Your task to perform on an android device: turn on location history Image 0: 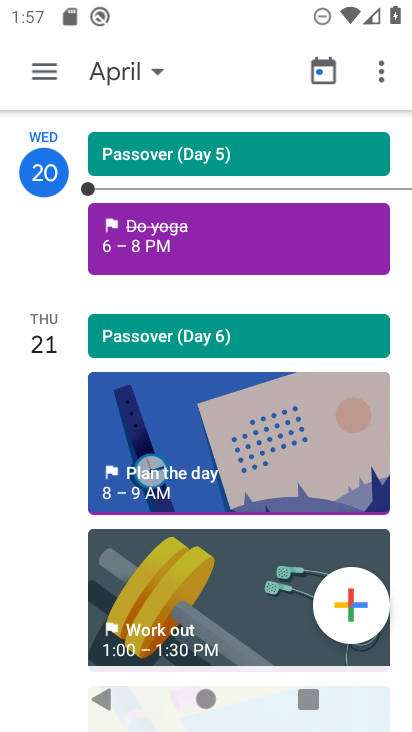
Step 0: press home button
Your task to perform on an android device: turn on location history Image 1: 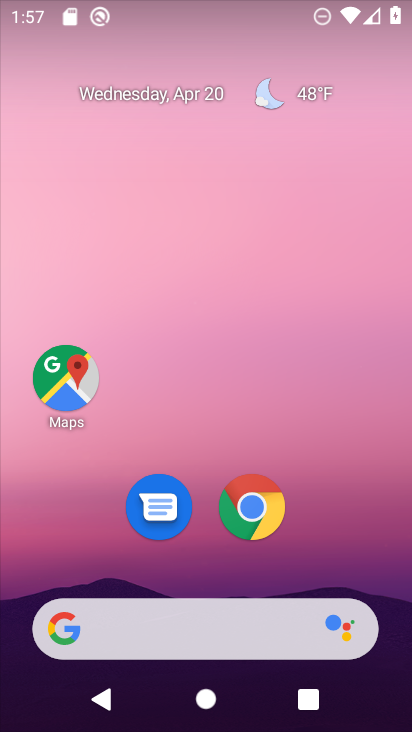
Step 1: drag from (212, 726) to (211, 69)
Your task to perform on an android device: turn on location history Image 2: 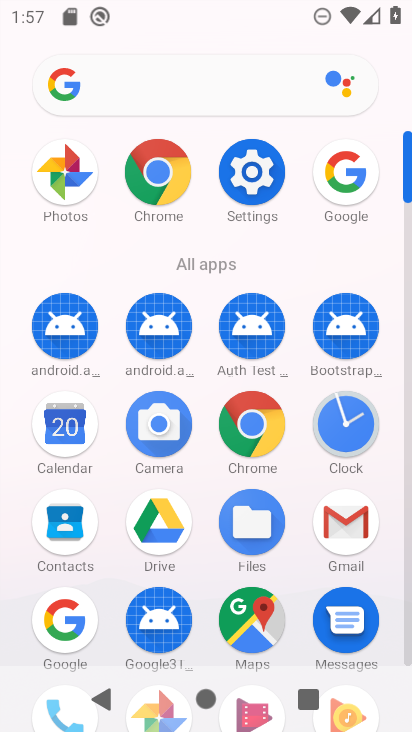
Step 2: click (249, 172)
Your task to perform on an android device: turn on location history Image 3: 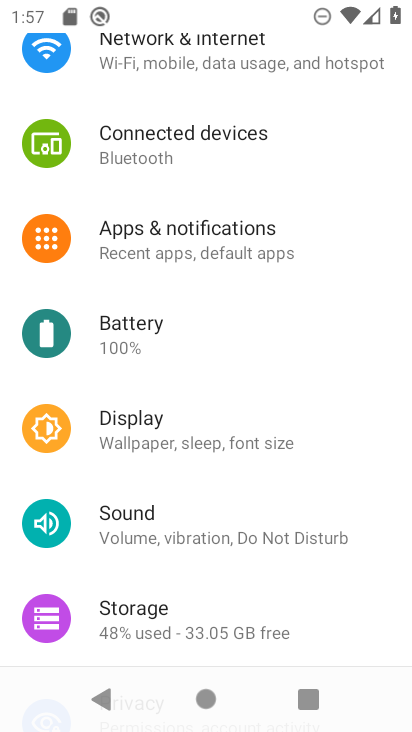
Step 3: drag from (180, 590) to (167, 252)
Your task to perform on an android device: turn on location history Image 4: 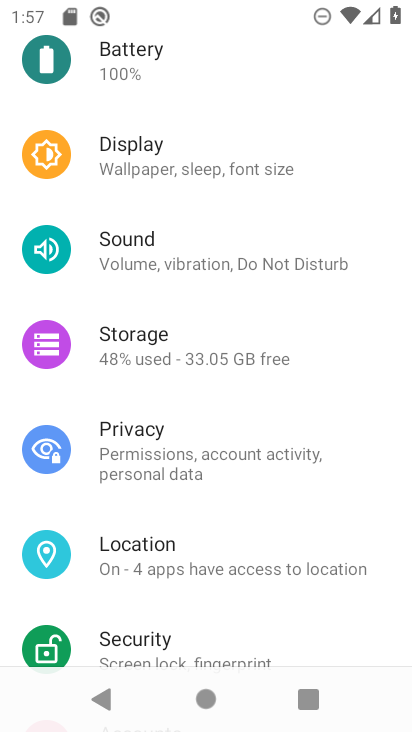
Step 4: click (154, 548)
Your task to perform on an android device: turn on location history Image 5: 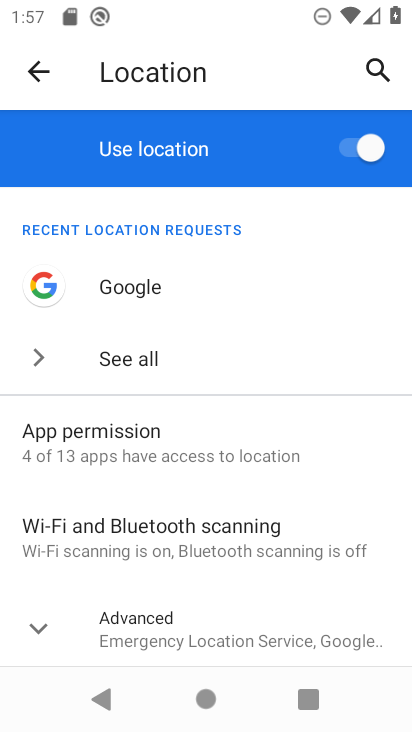
Step 5: drag from (222, 618) to (219, 275)
Your task to perform on an android device: turn on location history Image 6: 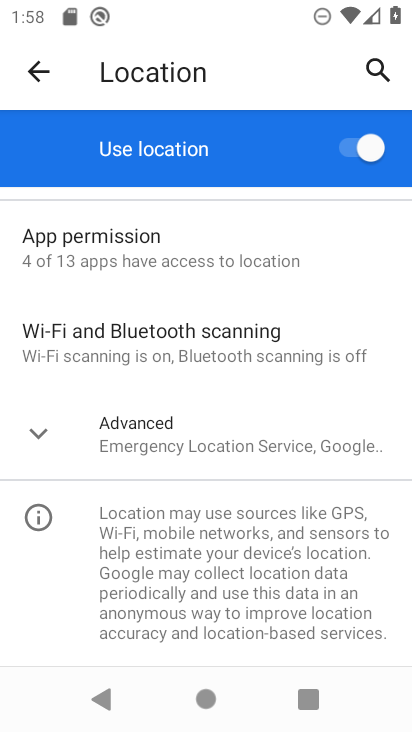
Step 6: click (155, 421)
Your task to perform on an android device: turn on location history Image 7: 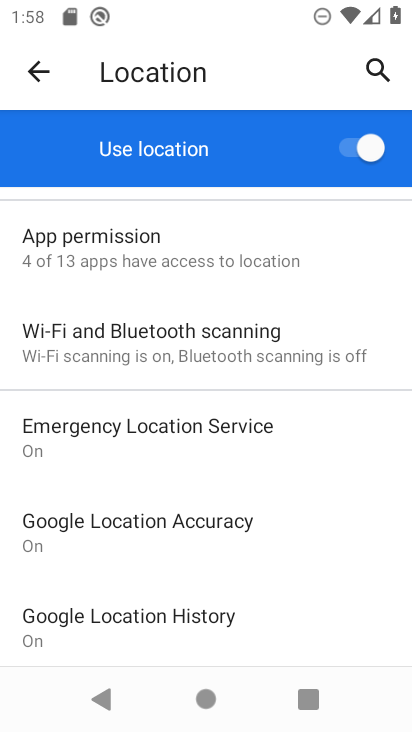
Step 7: click (191, 610)
Your task to perform on an android device: turn on location history Image 8: 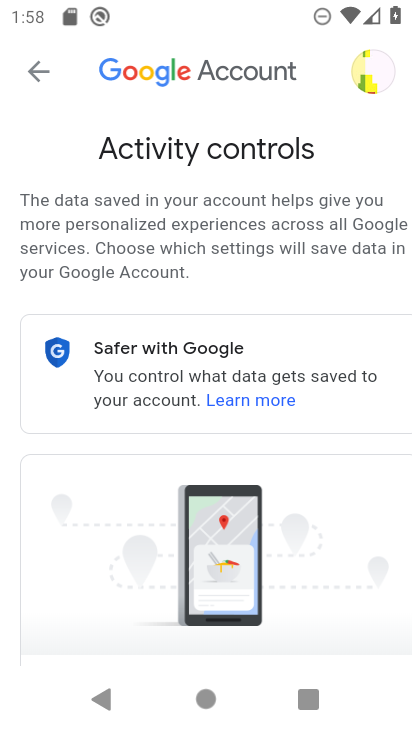
Step 8: task complete